Your task to perform on an android device: Go to battery settings Image 0: 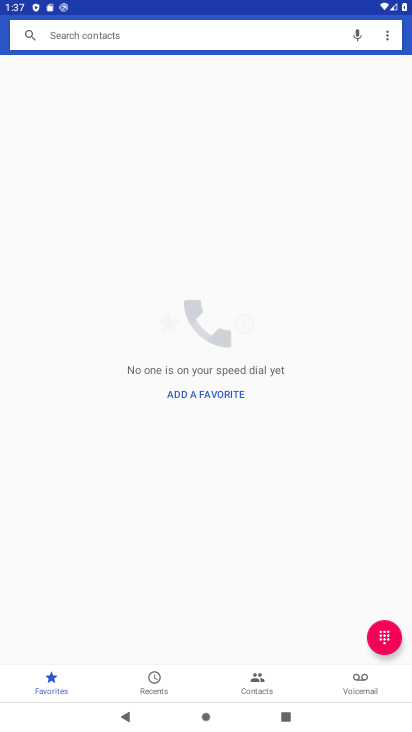
Step 0: press home button
Your task to perform on an android device: Go to battery settings Image 1: 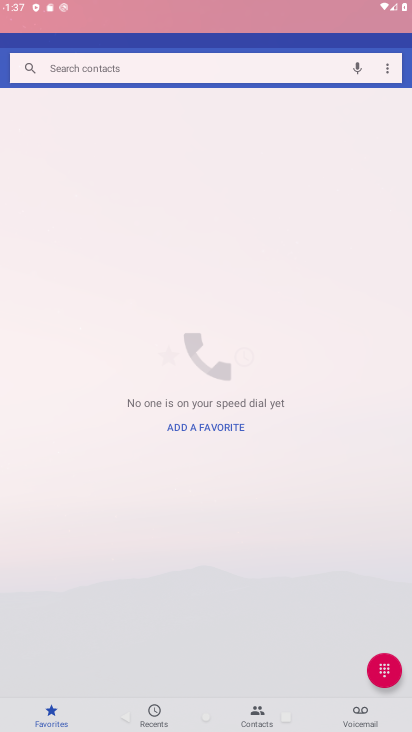
Step 1: drag from (295, 594) to (98, 134)
Your task to perform on an android device: Go to battery settings Image 2: 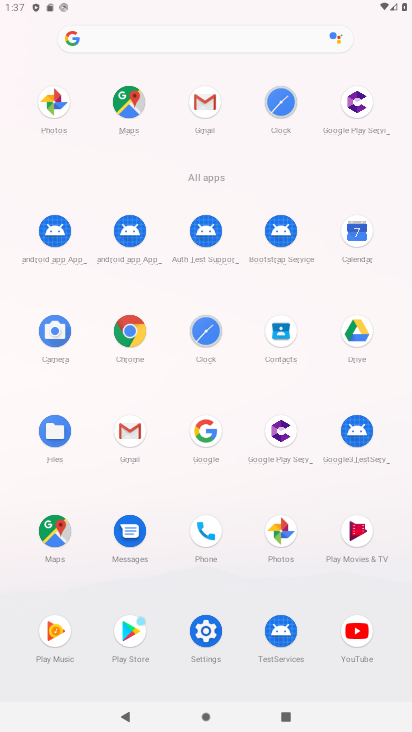
Step 2: click (202, 649)
Your task to perform on an android device: Go to battery settings Image 3: 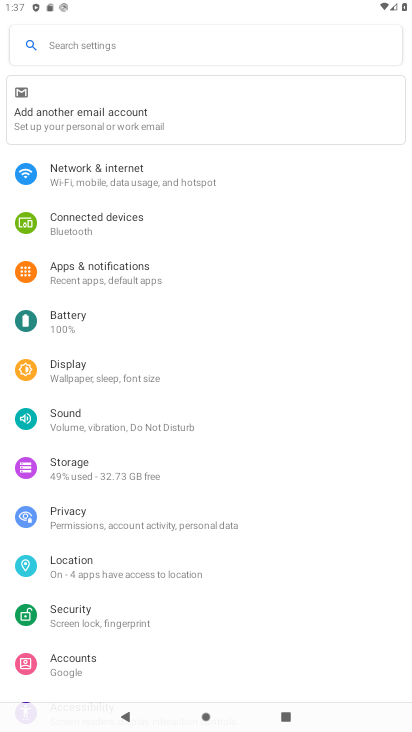
Step 3: click (41, 318)
Your task to perform on an android device: Go to battery settings Image 4: 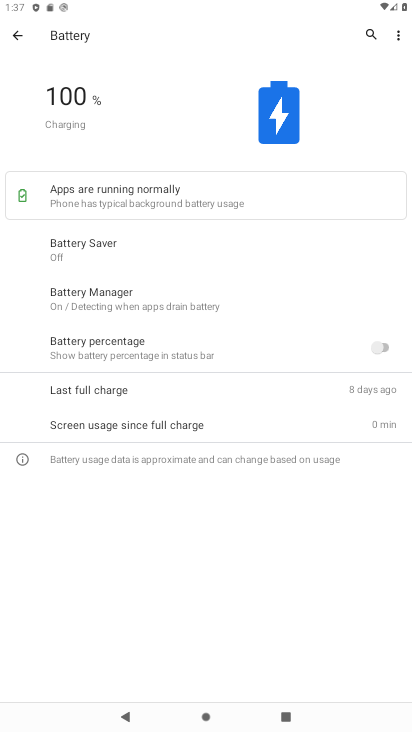
Step 4: task complete